Your task to perform on an android device: change the clock display to show seconds Image 0: 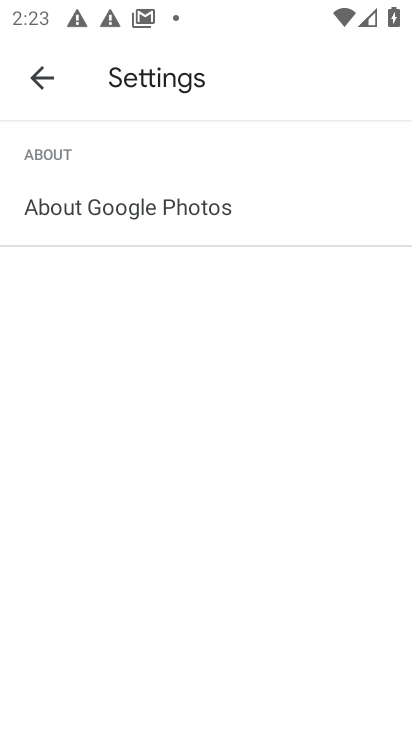
Step 0: press home button
Your task to perform on an android device: change the clock display to show seconds Image 1: 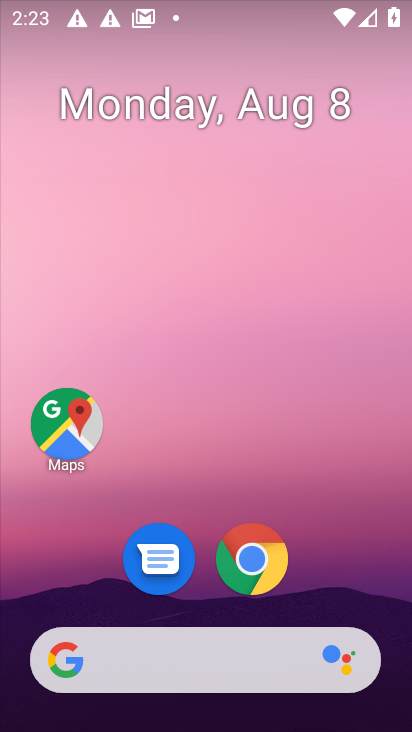
Step 1: drag from (183, 672) to (189, 166)
Your task to perform on an android device: change the clock display to show seconds Image 2: 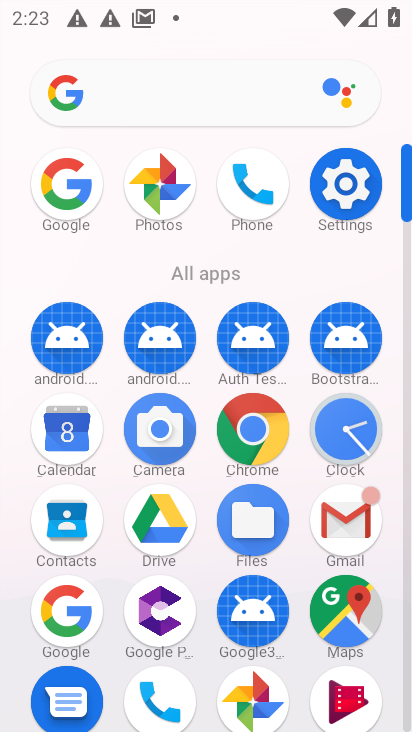
Step 2: click (347, 431)
Your task to perform on an android device: change the clock display to show seconds Image 3: 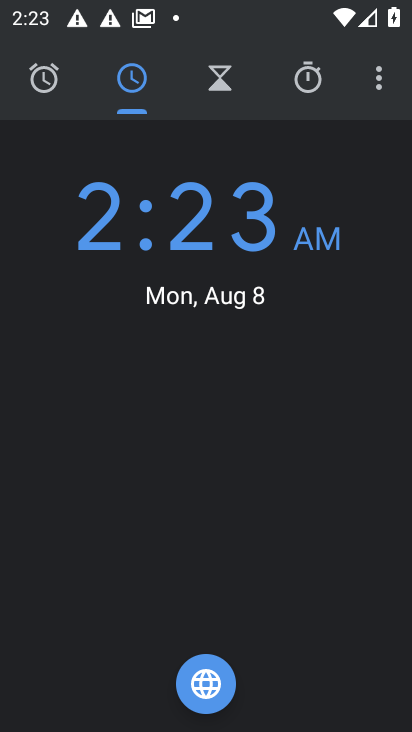
Step 3: click (381, 81)
Your task to perform on an android device: change the clock display to show seconds Image 4: 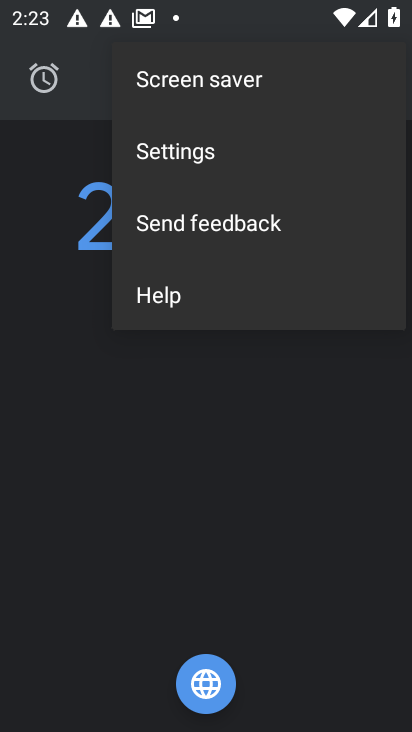
Step 4: click (198, 164)
Your task to perform on an android device: change the clock display to show seconds Image 5: 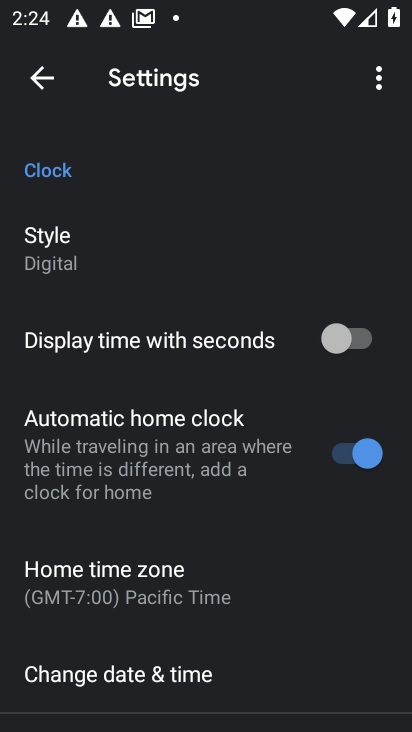
Step 5: click (347, 351)
Your task to perform on an android device: change the clock display to show seconds Image 6: 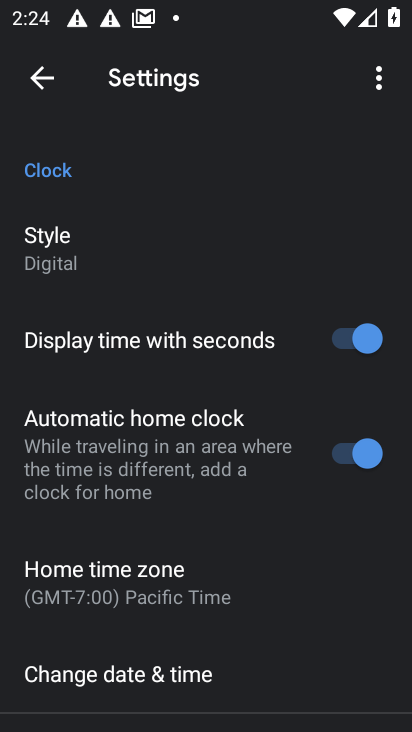
Step 6: task complete